Your task to perform on an android device: turn pop-ups off in chrome Image 0: 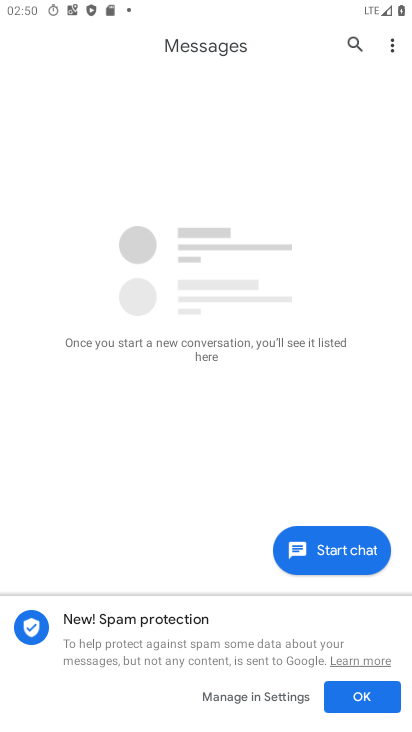
Step 0: press home button
Your task to perform on an android device: turn pop-ups off in chrome Image 1: 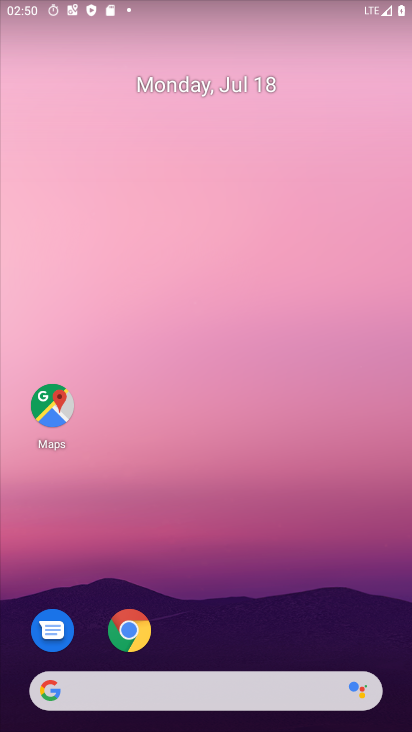
Step 1: click (136, 622)
Your task to perform on an android device: turn pop-ups off in chrome Image 2: 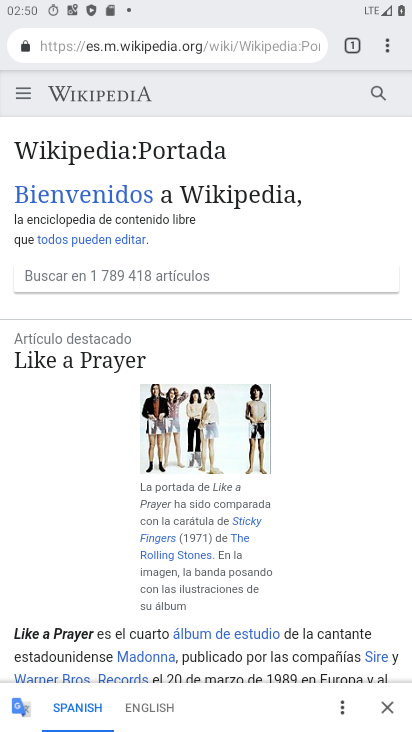
Step 2: click (391, 55)
Your task to perform on an android device: turn pop-ups off in chrome Image 3: 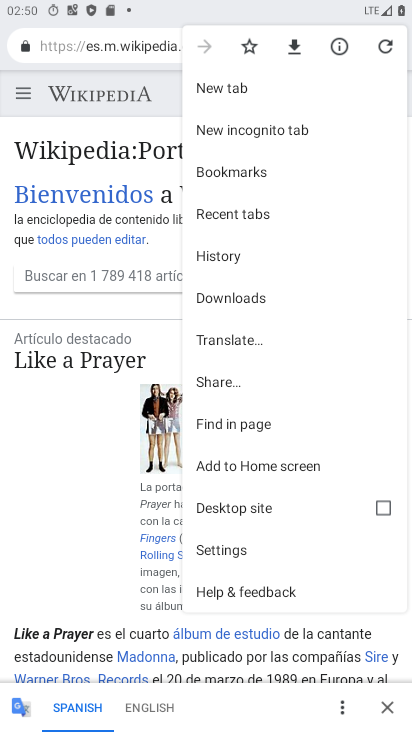
Step 3: click (291, 552)
Your task to perform on an android device: turn pop-ups off in chrome Image 4: 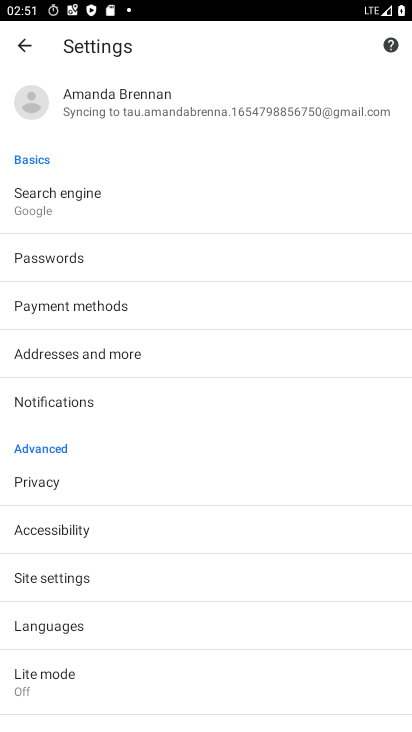
Step 4: click (78, 559)
Your task to perform on an android device: turn pop-ups off in chrome Image 5: 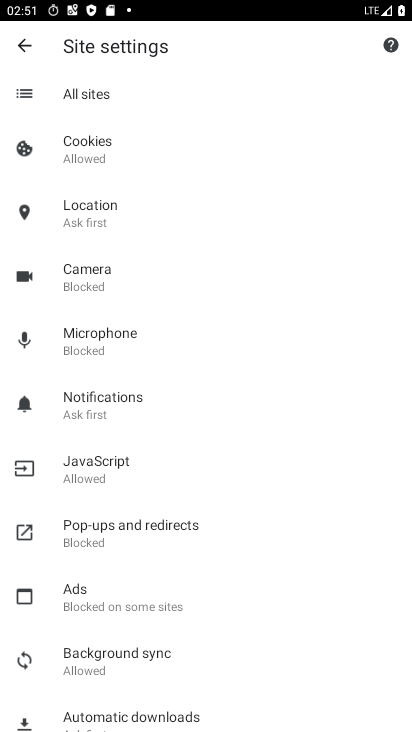
Step 5: click (203, 540)
Your task to perform on an android device: turn pop-ups off in chrome Image 6: 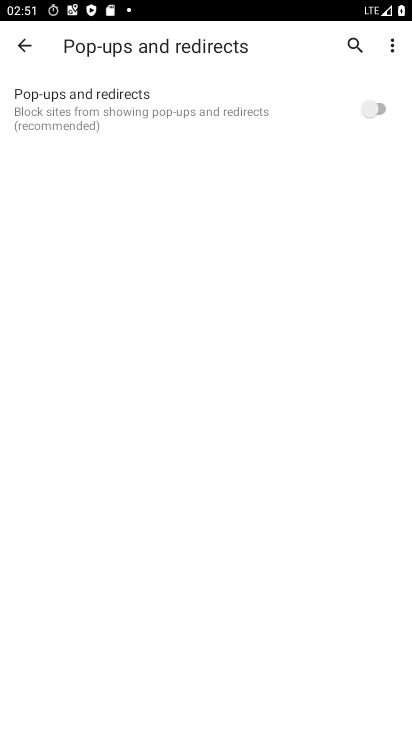
Step 6: task complete